Your task to perform on an android device: turn pop-ups off in chrome Image 0: 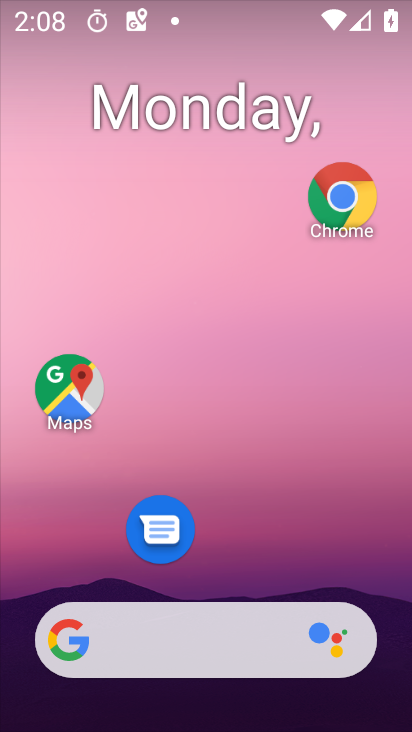
Step 0: click (330, 204)
Your task to perform on an android device: turn pop-ups off in chrome Image 1: 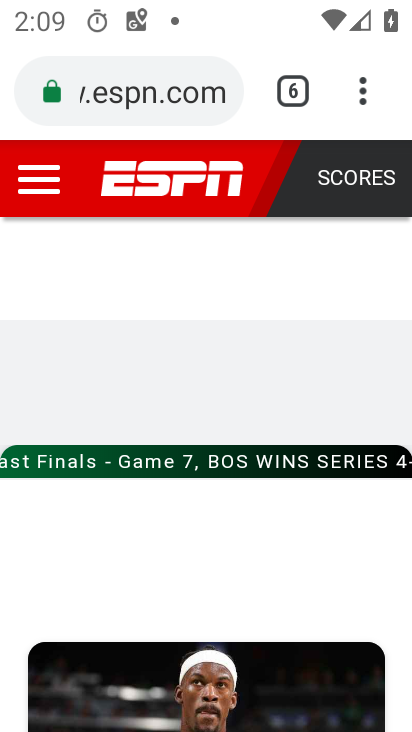
Step 1: click (358, 105)
Your task to perform on an android device: turn pop-ups off in chrome Image 2: 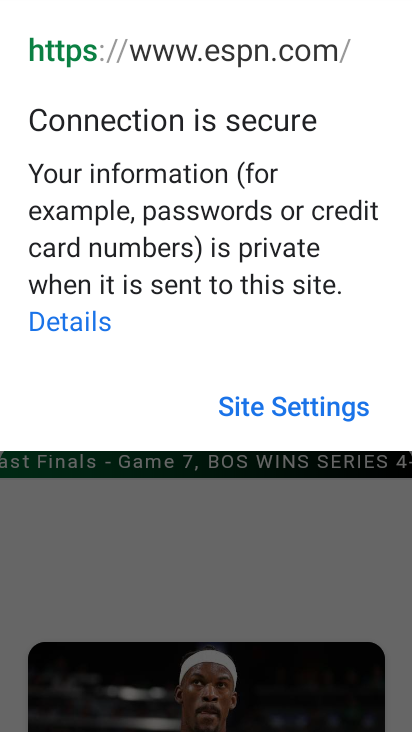
Step 2: click (278, 546)
Your task to perform on an android device: turn pop-ups off in chrome Image 3: 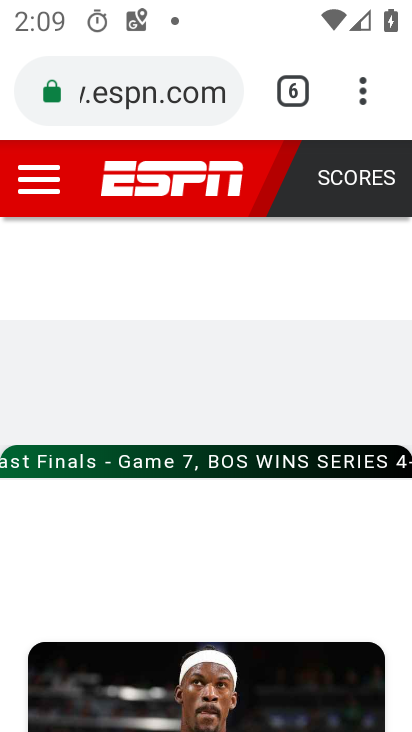
Step 3: drag from (363, 87) to (116, 570)
Your task to perform on an android device: turn pop-ups off in chrome Image 4: 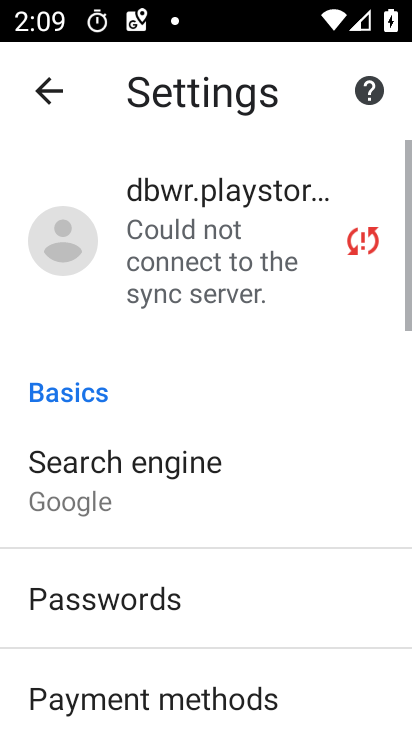
Step 4: drag from (174, 634) to (114, 156)
Your task to perform on an android device: turn pop-ups off in chrome Image 5: 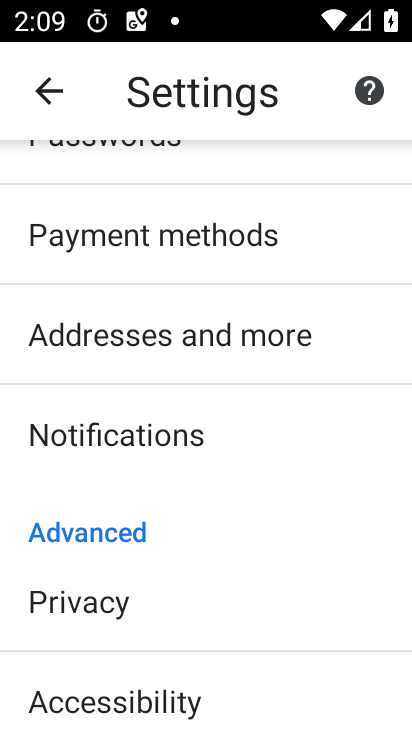
Step 5: drag from (101, 685) to (101, 188)
Your task to perform on an android device: turn pop-ups off in chrome Image 6: 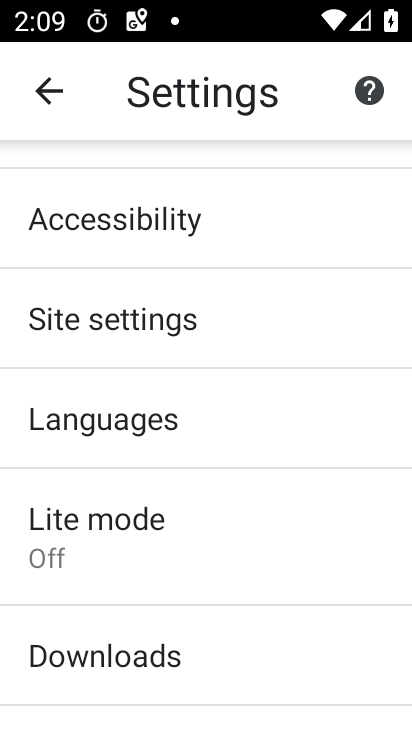
Step 6: click (94, 335)
Your task to perform on an android device: turn pop-ups off in chrome Image 7: 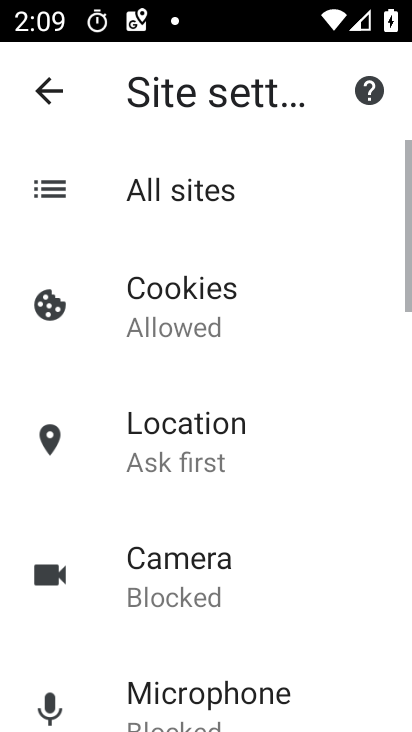
Step 7: drag from (165, 636) to (125, 174)
Your task to perform on an android device: turn pop-ups off in chrome Image 8: 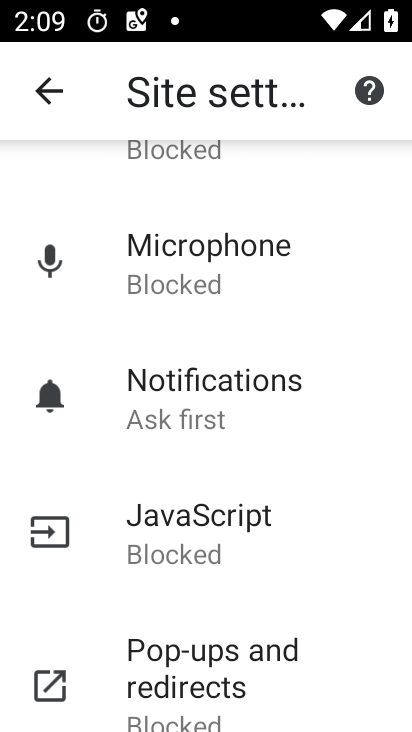
Step 8: click (194, 660)
Your task to perform on an android device: turn pop-ups off in chrome Image 9: 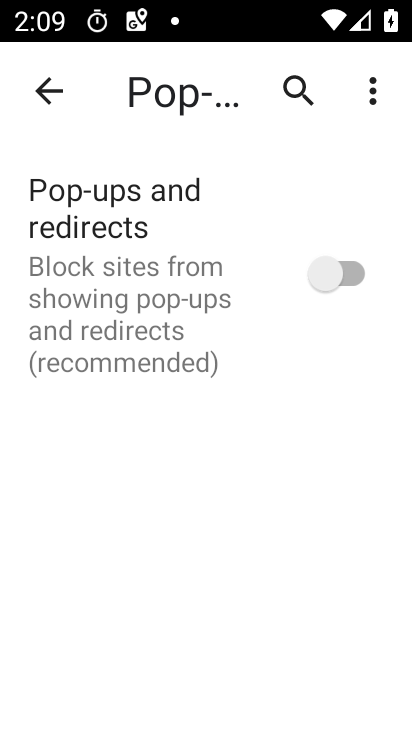
Step 9: task complete